Your task to perform on an android device: Go to internet settings Image 0: 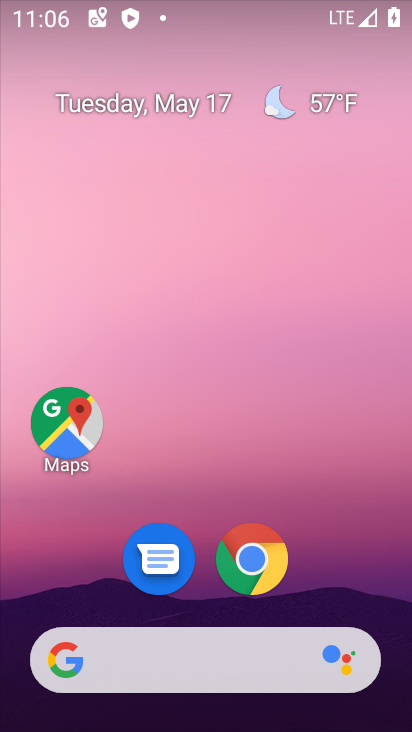
Step 0: drag from (213, 6) to (252, 496)
Your task to perform on an android device: Go to internet settings Image 1: 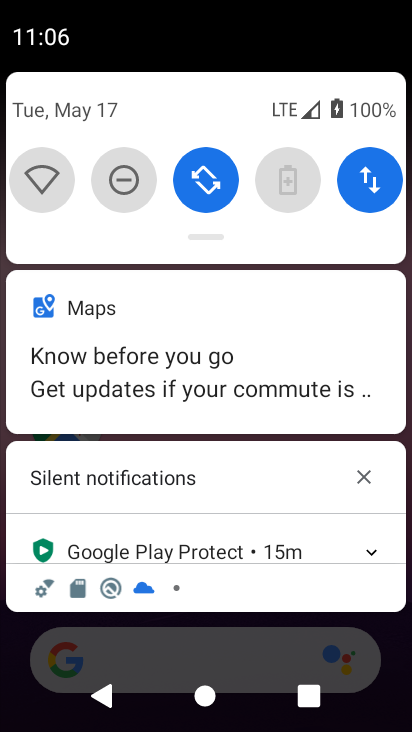
Step 1: drag from (310, 659) to (261, 59)
Your task to perform on an android device: Go to internet settings Image 2: 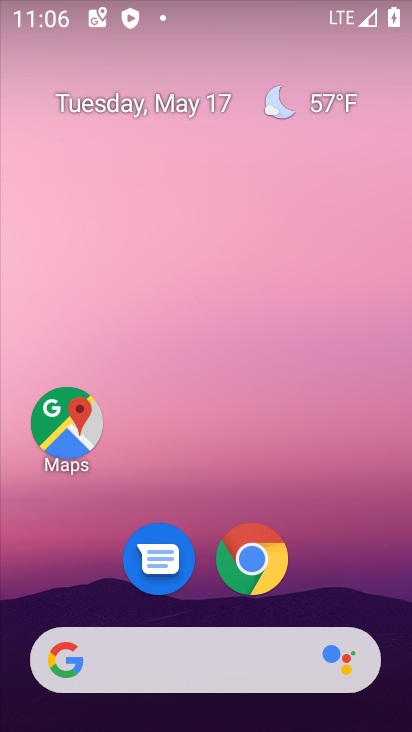
Step 2: drag from (316, 475) to (129, 8)
Your task to perform on an android device: Go to internet settings Image 3: 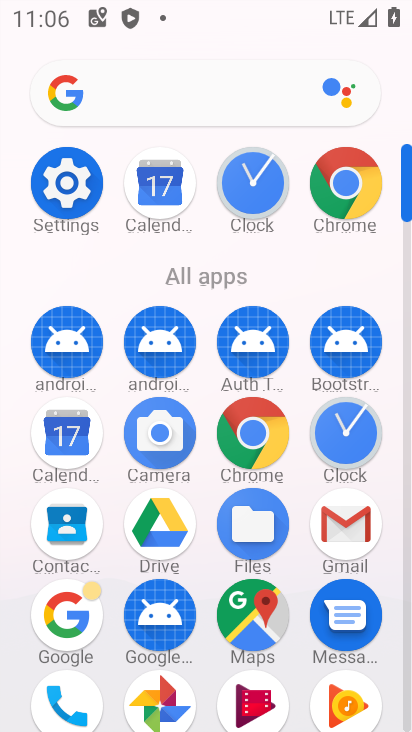
Step 3: click (88, 199)
Your task to perform on an android device: Go to internet settings Image 4: 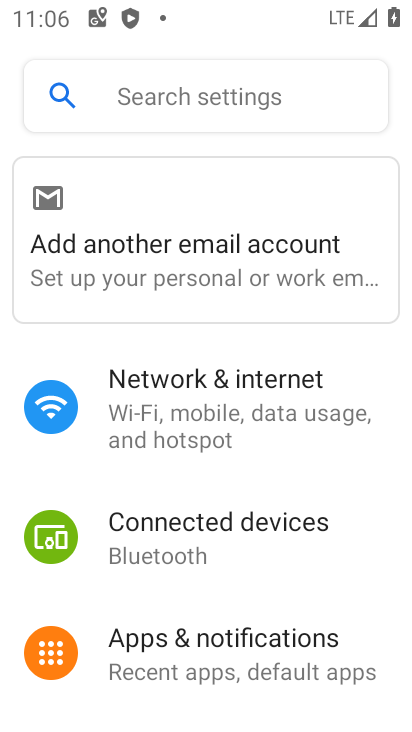
Step 4: click (206, 385)
Your task to perform on an android device: Go to internet settings Image 5: 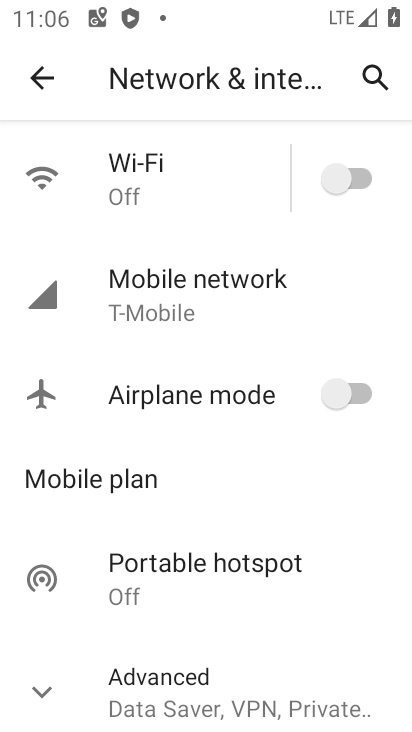
Step 5: task complete